Your task to perform on an android device: What's the weather going to be this weekend? Image 0: 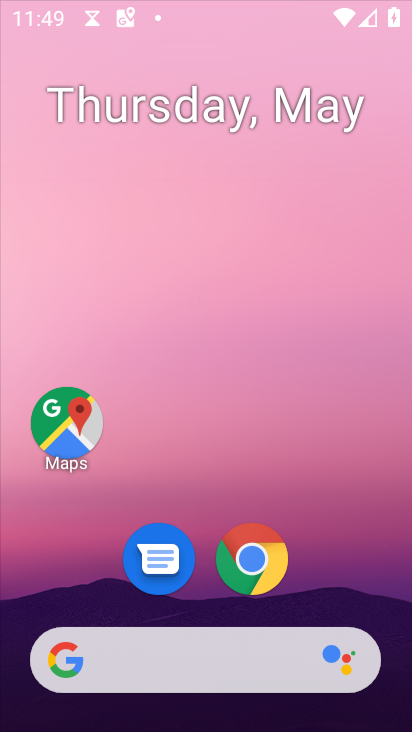
Step 0: drag from (218, 628) to (220, 208)
Your task to perform on an android device: What's the weather going to be this weekend? Image 1: 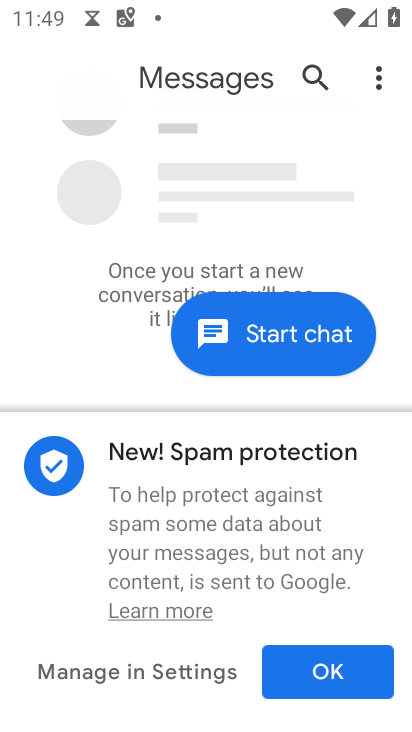
Step 1: press home button
Your task to perform on an android device: What's the weather going to be this weekend? Image 2: 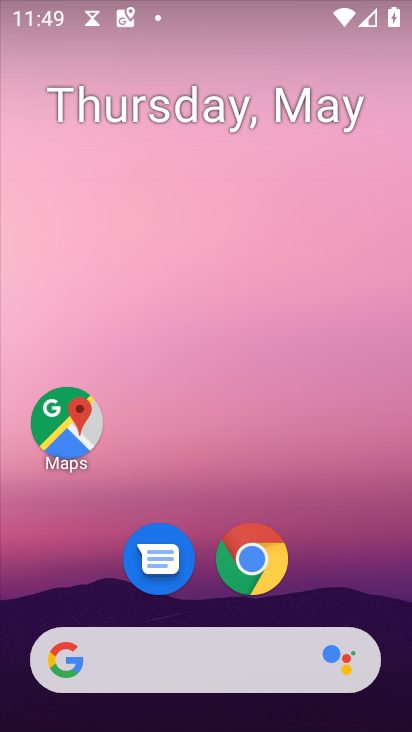
Step 2: drag from (191, 725) to (177, 159)
Your task to perform on an android device: What's the weather going to be this weekend? Image 3: 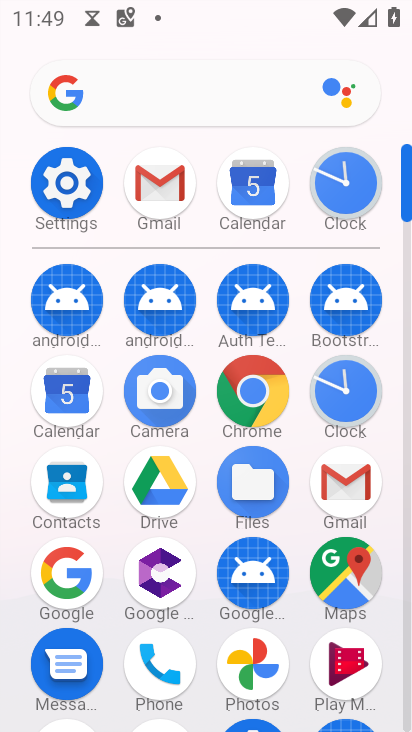
Step 3: press back button
Your task to perform on an android device: What's the weather going to be this weekend? Image 4: 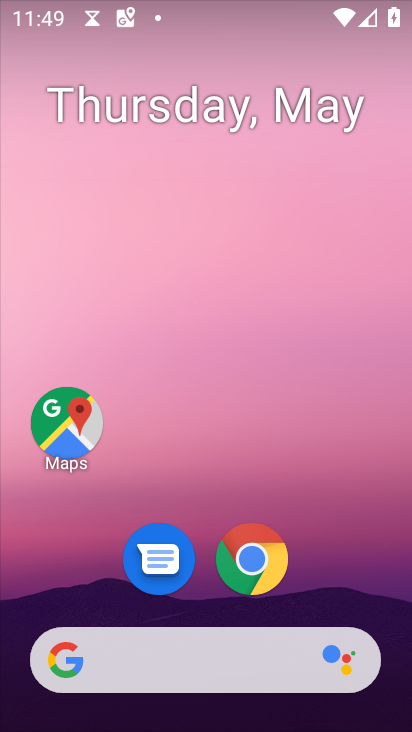
Step 4: drag from (208, 724) to (202, 307)
Your task to perform on an android device: What's the weather going to be this weekend? Image 5: 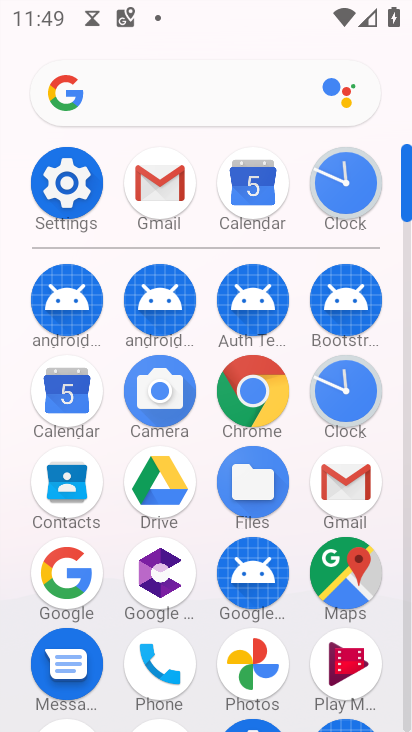
Step 5: click (69, 567)
Your task to perform on an android device: What's the weather going to be this weekend? Image 6: 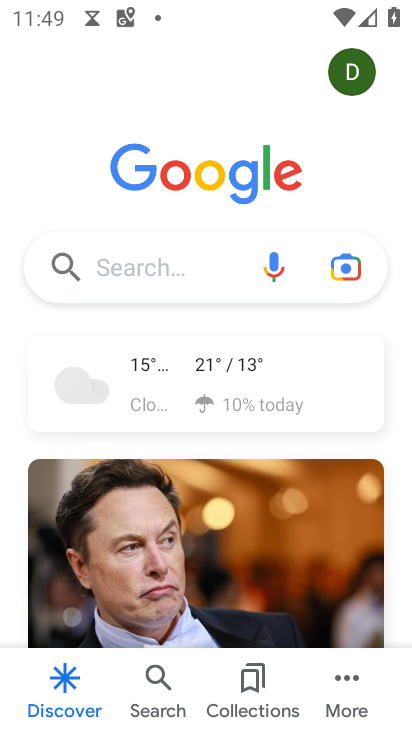
Step 6: click (89, 380)
Your task to perform on an android device: What's the weather going to be this weekend? Image 7: 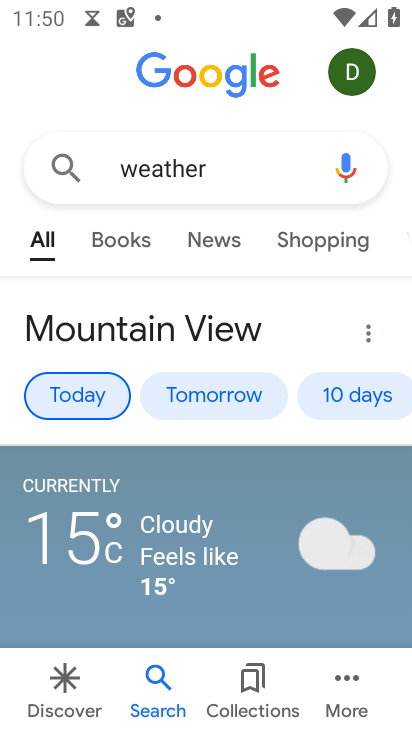
Step 7: click (354, 398)
Your task to perform on an android device: What's the weather going to be this weekend? Image 8: 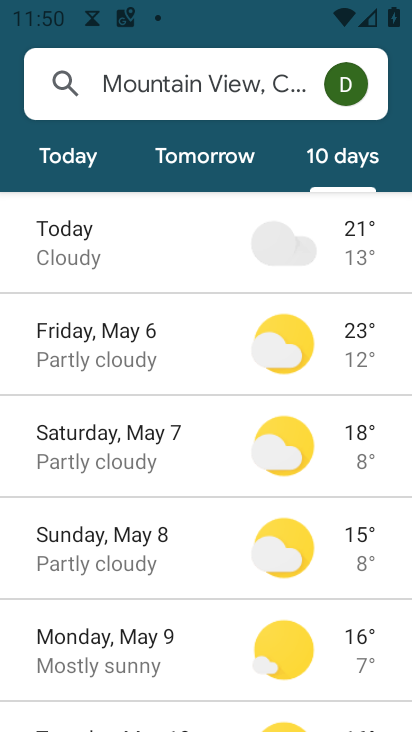
Step 8: drag from (187, 579) to (187, 496)
Your task to perform on an android device: What's the weather going to be this weekend? Image 9: 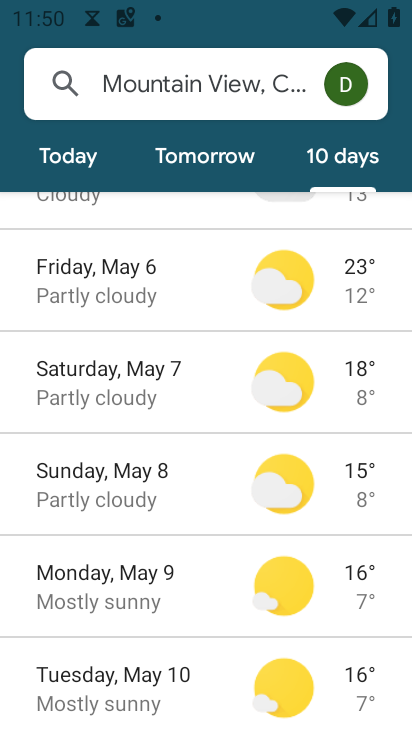
Step 9: click (178, 380)
Your task to perform on an android device: What's the weather going to be this weekend? Image 10: 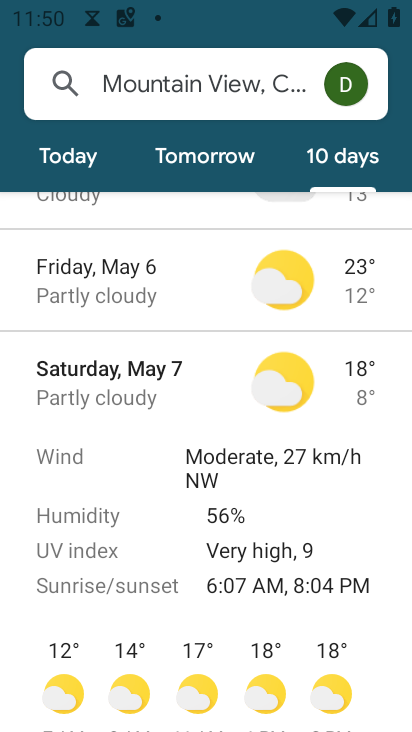
Step 10: task complete